Your task to perform on an android device: open chrome and create a bookmark for the current page Image 0: 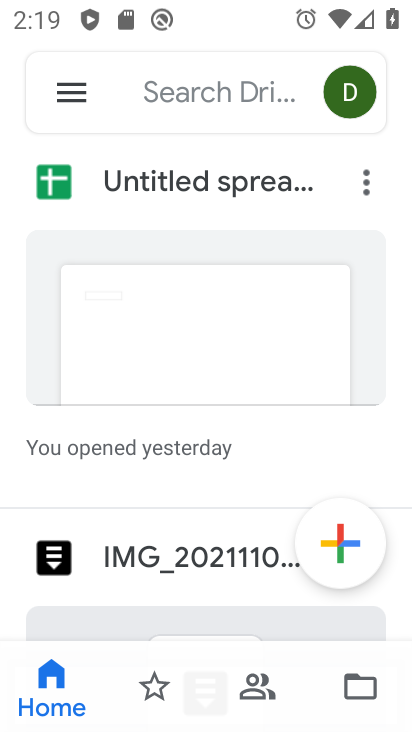
Step 0: press home button
Your task to perform on an android device: open chrome and create a bookmark for the current page Image 1: 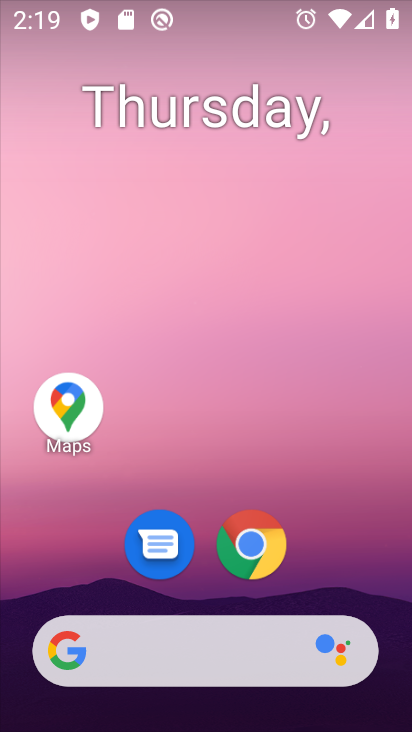
Step 1: click (232, 552)
Your task to perform on an android device: open chrome and create a bookmark for the current page Image 2: 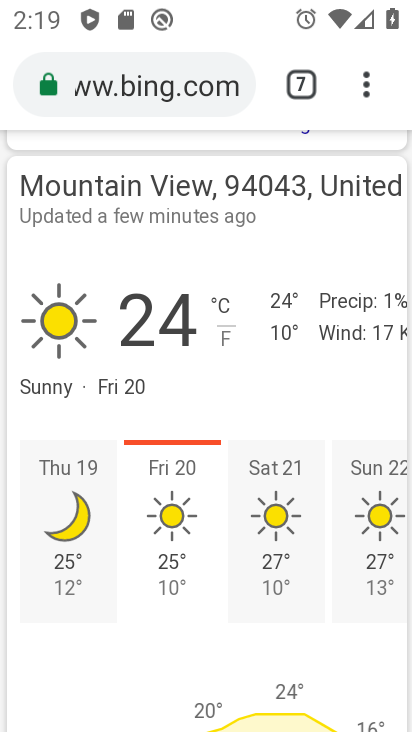
Step 2: click (367, 85)
Your task to perform on an android device: open chrome and create a bookmark for the current page Image 3: 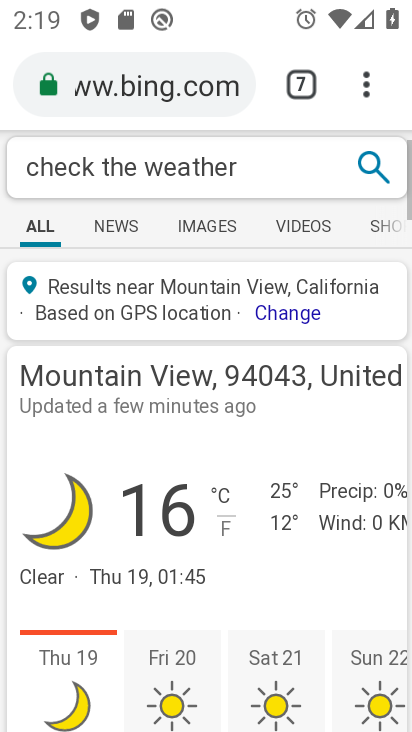
Step 3: click (367, 85)
Your task to perform on an android device: open chrome and create a bookmark for the current page Image 4: 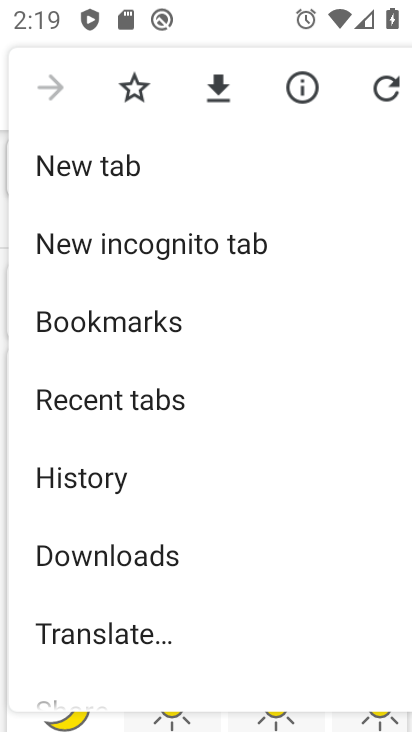
Step 4: click (137, 89)
Your task to perform on an android device: open chrome and create a bookmark for the current page Image 5: 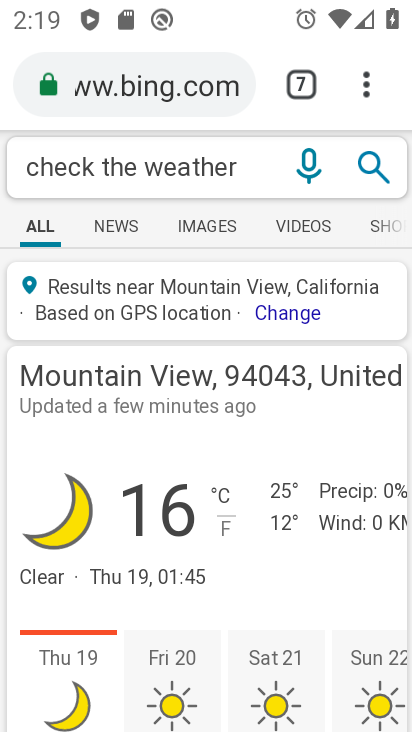
Step 5: click (367, 86)
Your task to perform on an android device: open chrome and create a bookmark for the current page Image 6: 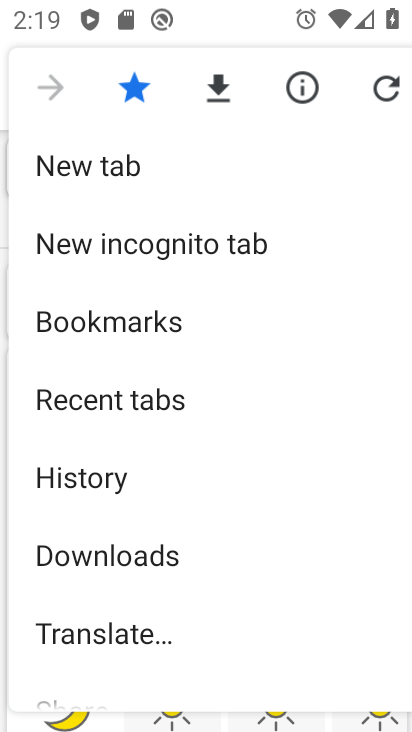
Step 6: task complete